Your task to perform on an android device: Open eBay Image 0: 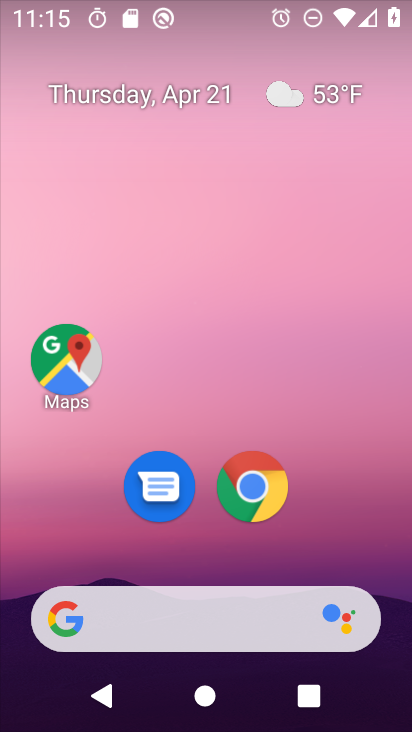
Step 0: click (88, 366)
Your task to perform on an android device: Open eBay Image 1: 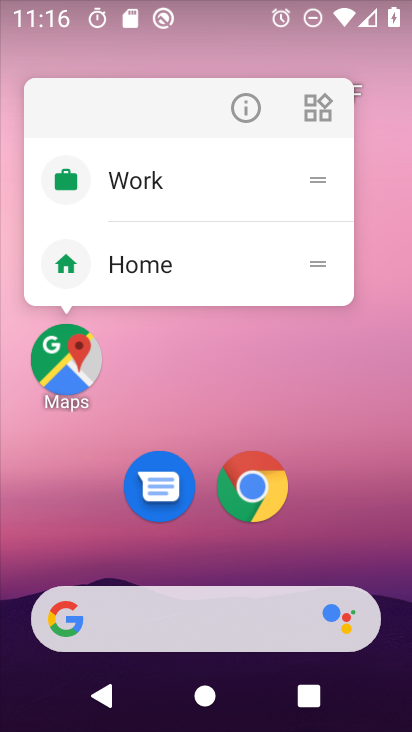
Step 1: click (60, 343)
Your task to perform on an android device: Open eBay Image 2: 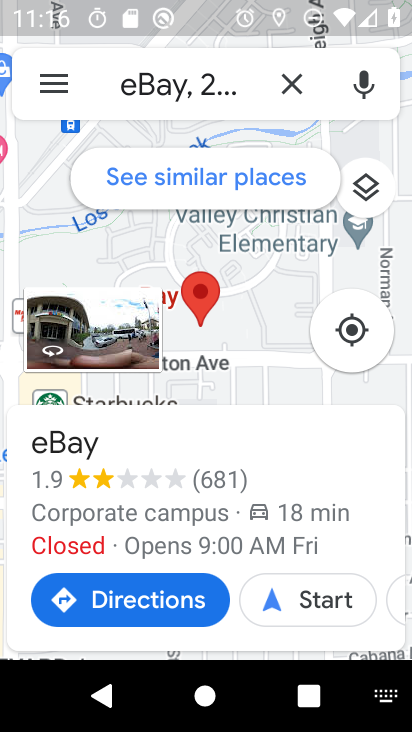
Step 2: click (290, 69)
Your task to perform on an android device: Open eBay Image 3: 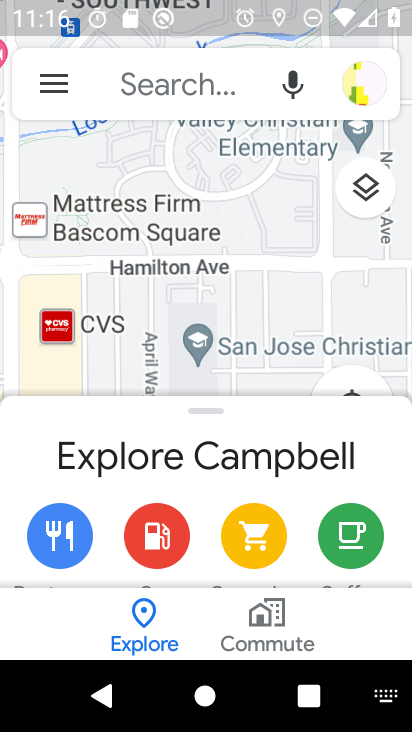
Step 3: click (99, 88)
Your task to perform on an android device: Open eBay Image 4: 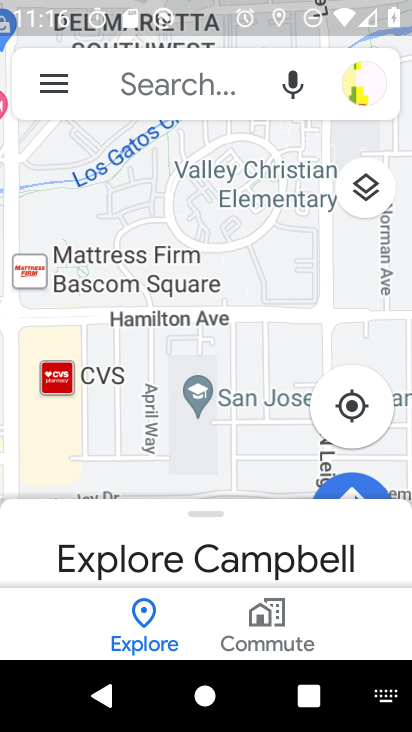
Step 4: type "eBay"
Your task to perform on an android device: Open eBay Image 5: 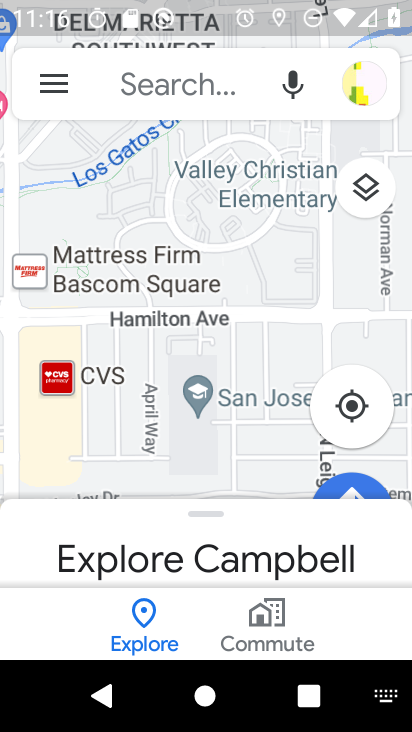
Step 5: click (100, 96)
Your task to perform on an android device: Open eBay Image 6: 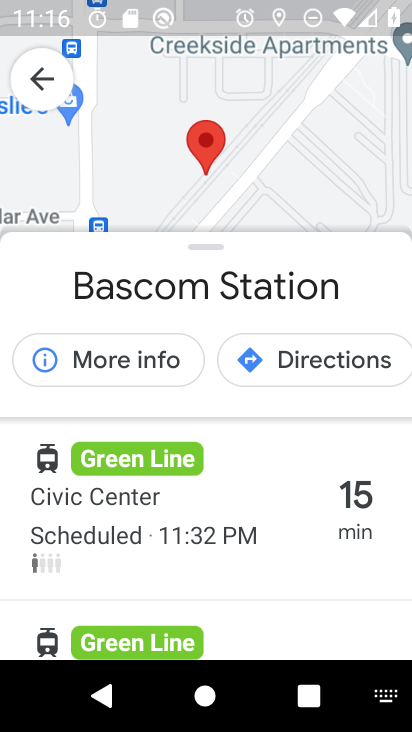
Step 6: click (36, 85)
Your task to perform on an android device: Open eBay Image 7: 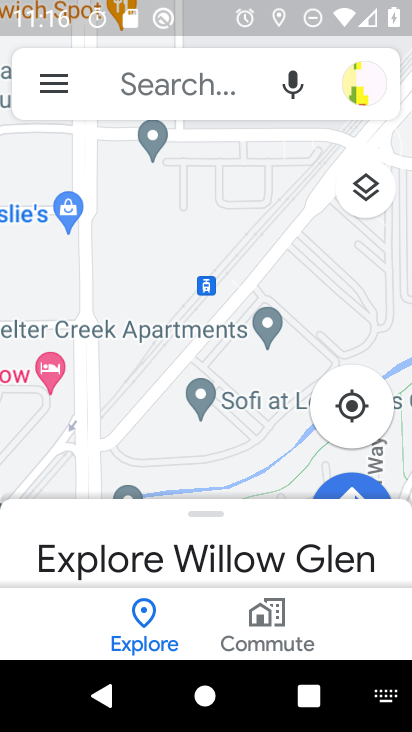
Step 7: click (140, 84)
Your task to perform on an android device: Open eBay Image 8: 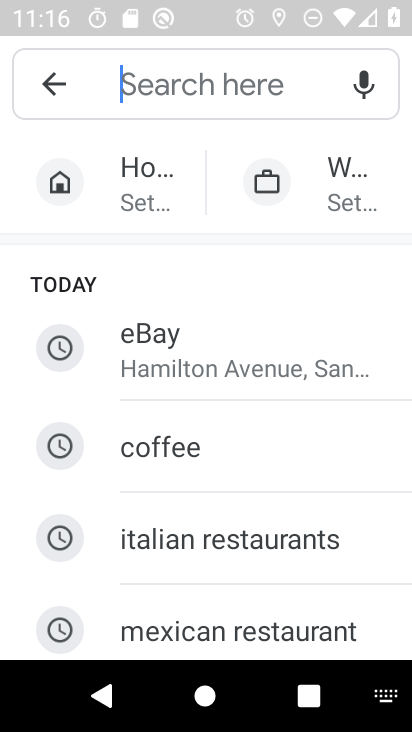
Step 8: type "eBay"
Your task to perform on an android device: Open eBay Image 9: 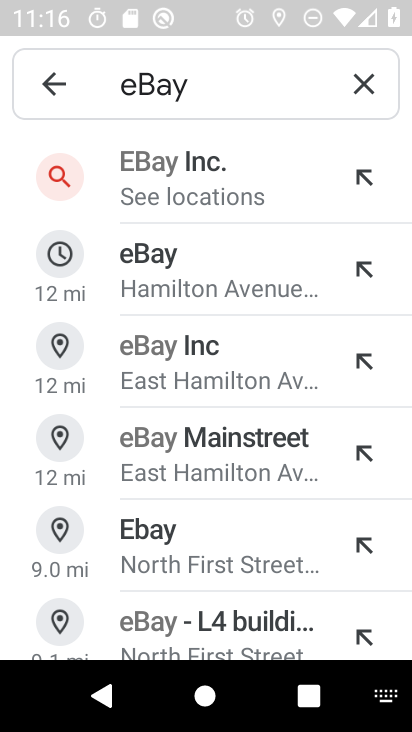
Step 9: click (167, 268)
Your task to perform on an android device: Open eBay Image 10: 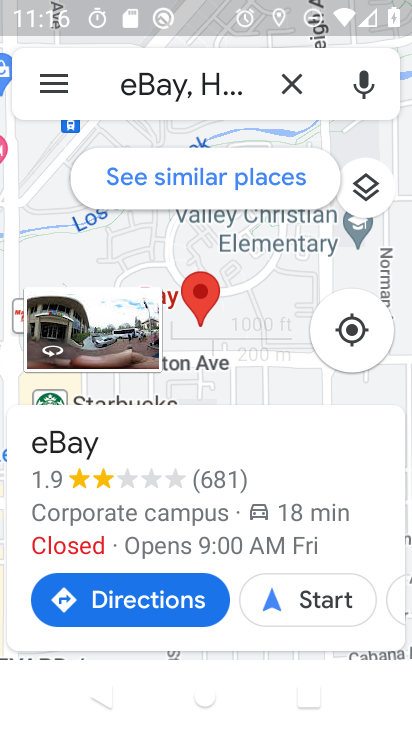
Step 10: task complete